Your task to perform on an android device: change the clock display to show seconds Image 0: 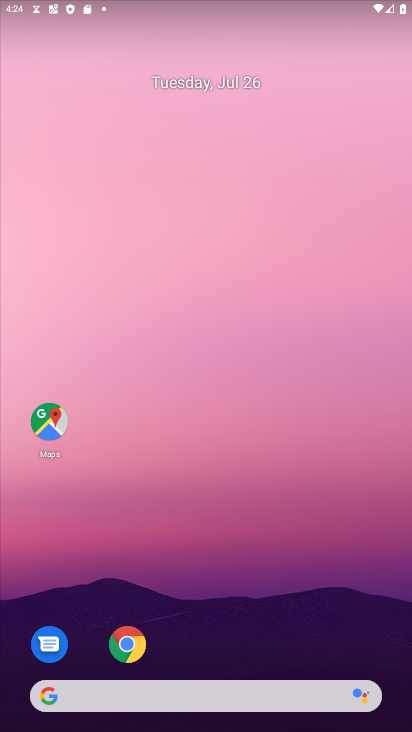
Step 0: drag from (252, 651) to (163, 111)
Your task to perform on an android device: change the clock display to show seconds Image 1: 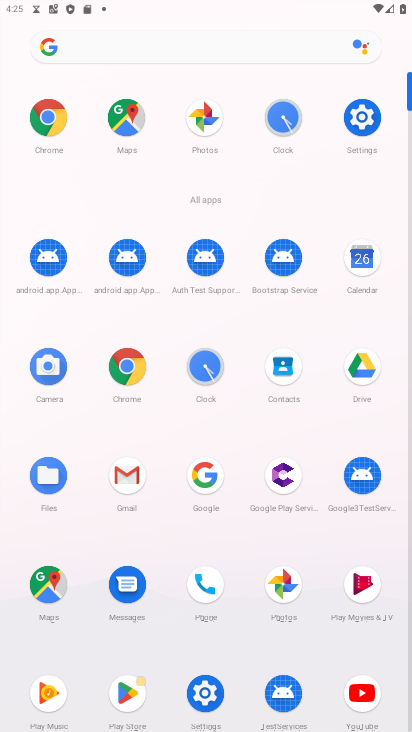
Step 1: click (294, 129)
Your task to perform on an android device: change the clock display to show seconds Image 2: 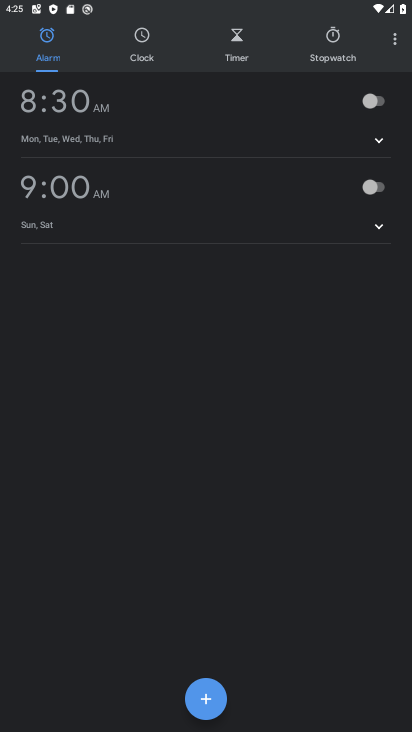
Step 2: click (402, 44)
Your task to perform on an android device: change the clock display to show seconds Image 3: 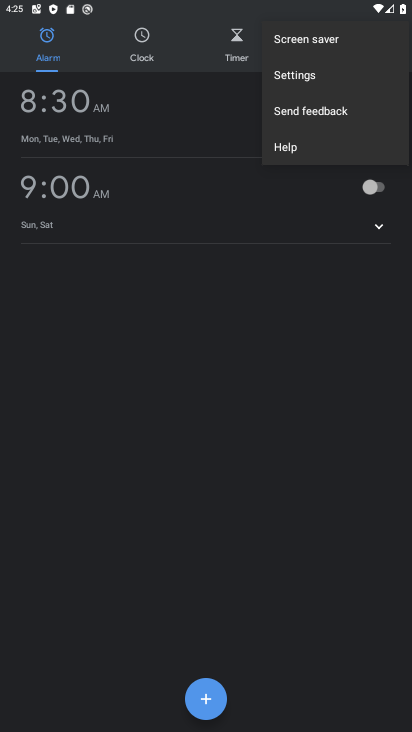
Step 3: click (369, 69)
Your task to perform on an android device: change the clock display to show seconds Image 4: 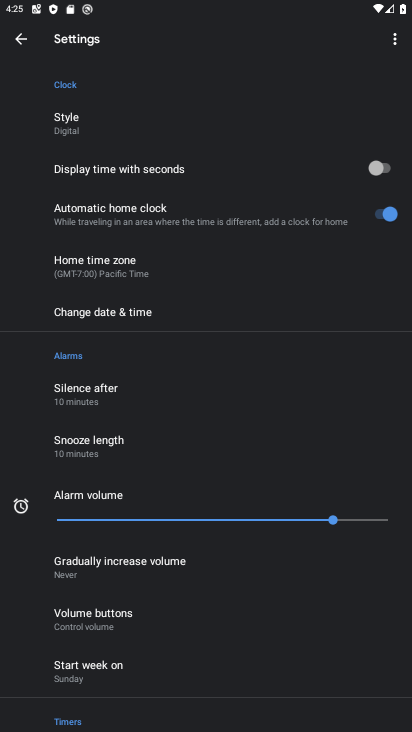
Step 4: click (394, 166)
Your task to perform on an android device: change the clock display to show seconds Image 5: 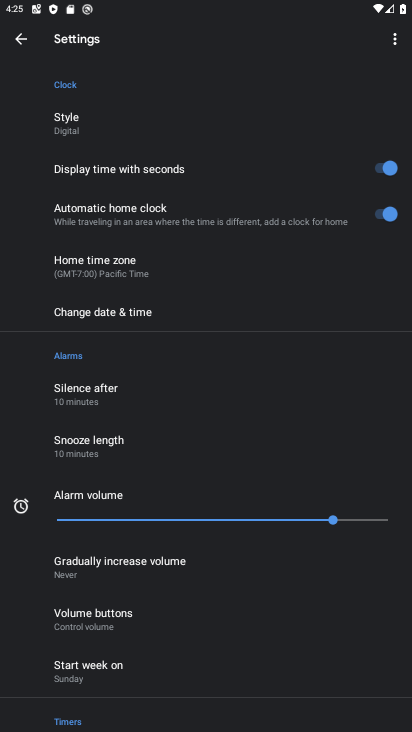
Step 5: task complete